Your task to perform on an android device: toggle improve location accuracy Image 0: 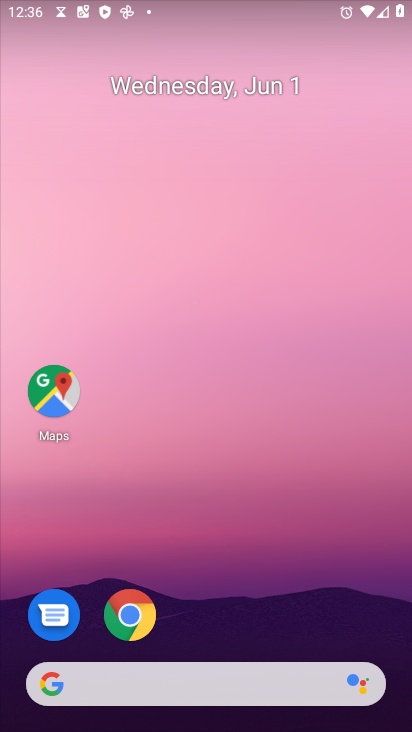
Step 0: drag from (369, 618) to (350, 172)
Your task to perform on an android device: toggle improve location accuracy Image 1: 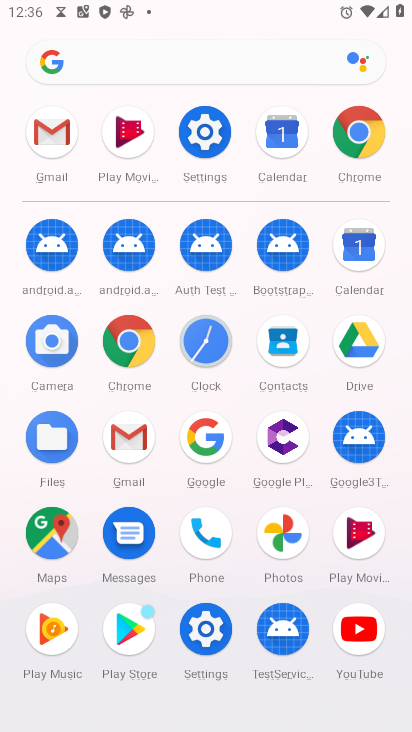
Step 1: click (194, 133)
Your task to perform on an android device: toggle improve location accuracy Image 2: 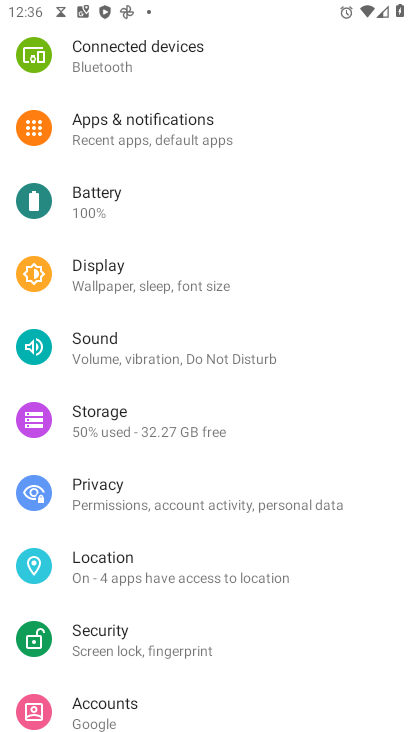
Step 2: click (125, 558)
Your task to perform on an android device: toggle improve location accuracy Image 3: 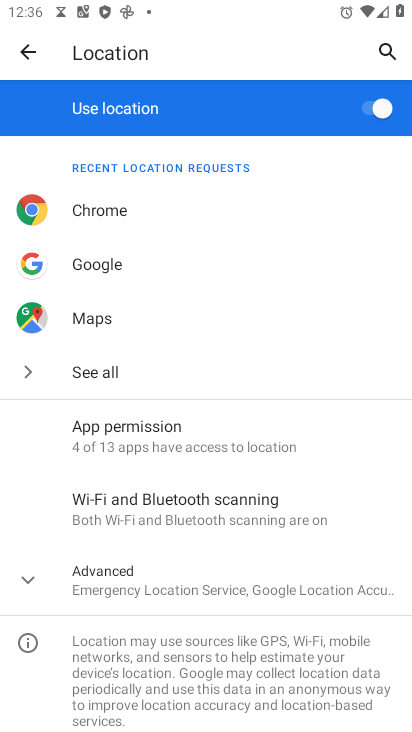
Step 3: click (181, 584)
Your task to perform on an android device: toggle improve location accuracy Image 4: 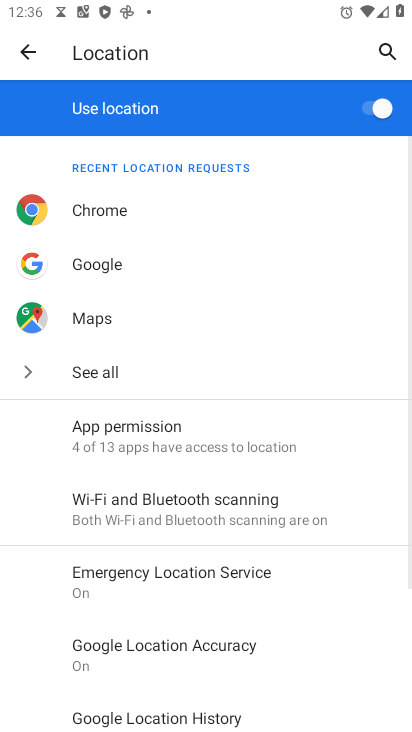
Step 4: drag from (199, 602) to (265, 241)
Your task to perform on an android device: toggle improve location accuracy Image 5: 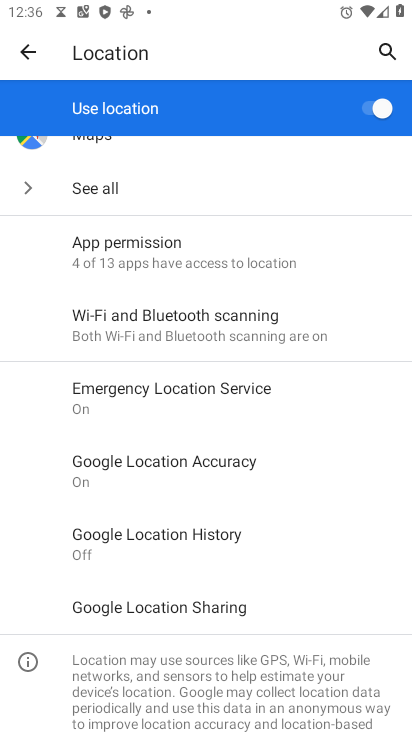
Step 5: click (209, 466)
Your task to perform on an android device: toggle improve location accuracy Image 6: 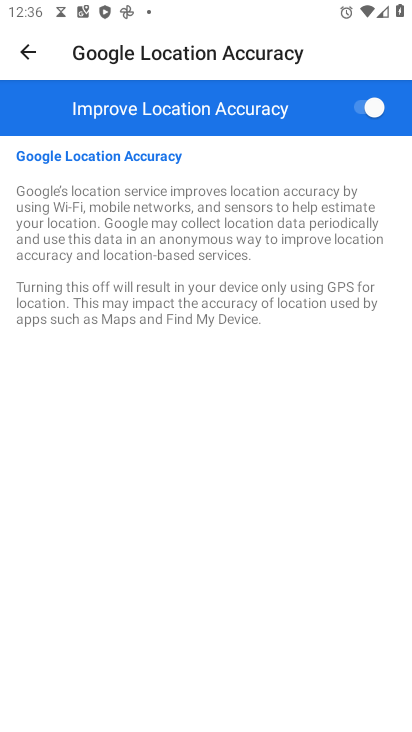
Step 6: click (370, 103)
Your task to perform on an android device: toggle improve location accuracy Image 7: 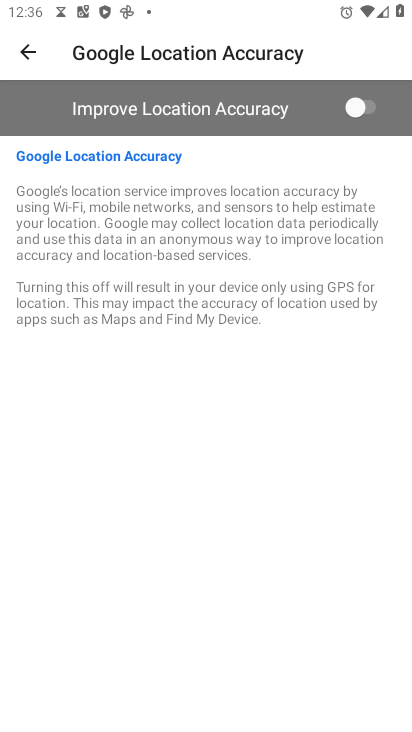
Step 7: task complete